Your task to perform on an android device: Go to Google Image 0: 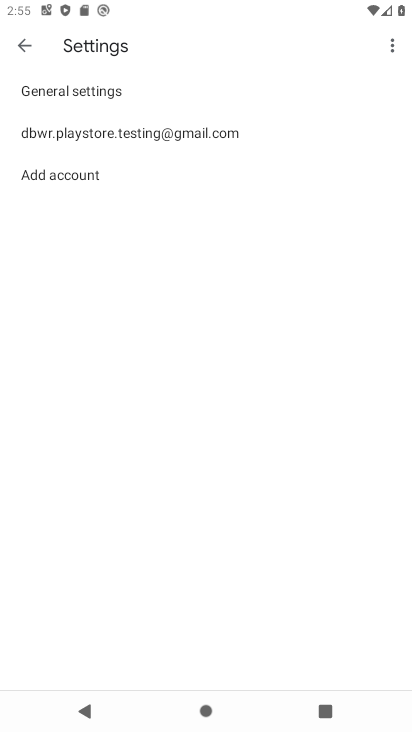
Step 0: press home button
Your task to perform on an android device: Go to Google Image 1: 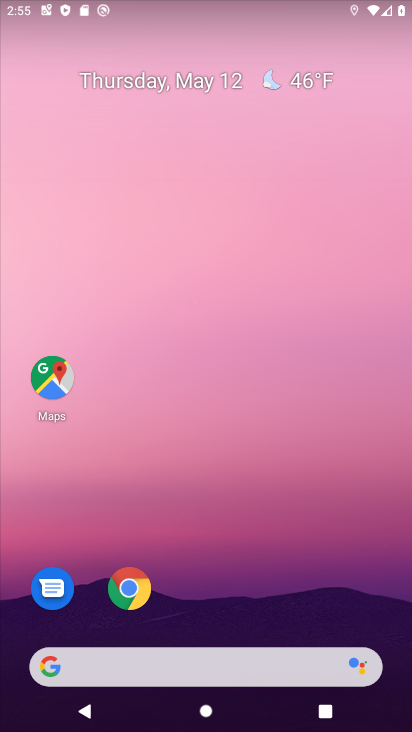
Step 1: drag from (375, 591) to (302, 65)
Your task to perform on an android device: Go to Google Image 2: 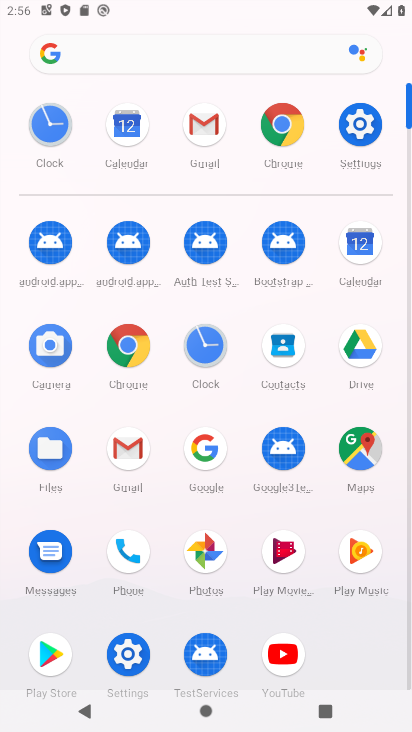
Step 2: click (209, 441)
Your task to perform on an android device: Go to Google Image 3: 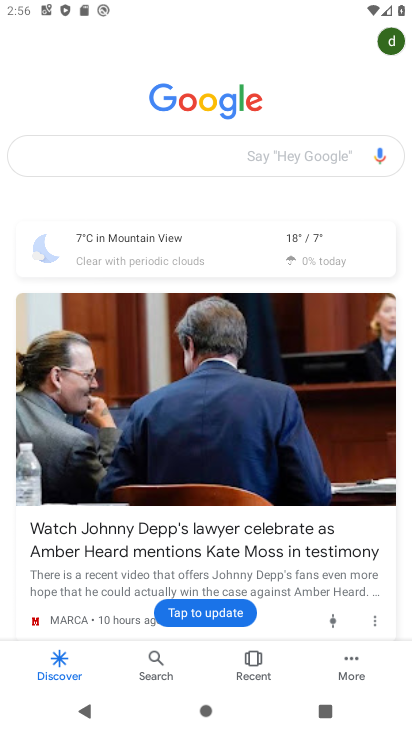
Step 3: task complete